Your task to perform on an android device: uninstall "NewsBreak: Local News & Alerts" Image 0: 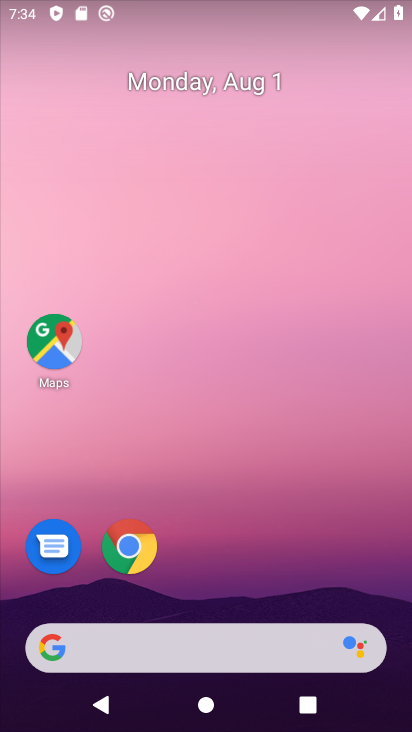
Step 0: drag from (235, 561) to (309, 47)
Your task to perform on an android device: uninstall "NewsBreak: Local News & Alerts" Image 1: 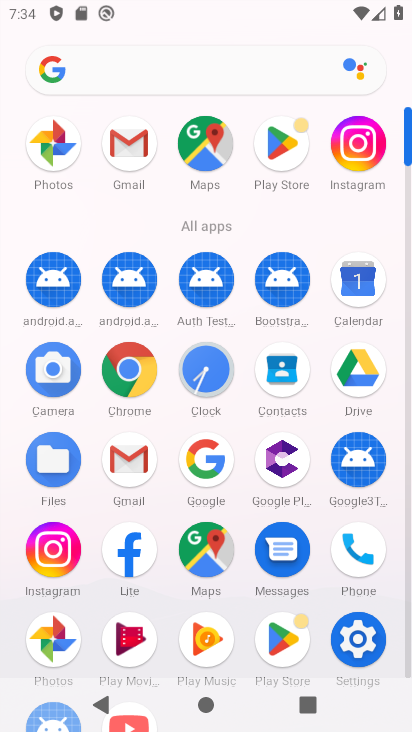
Step 1: click (281, 157)
Your task to perform on an android device: uninstall "NewsBreak: Local News & Alerts" Image 2: 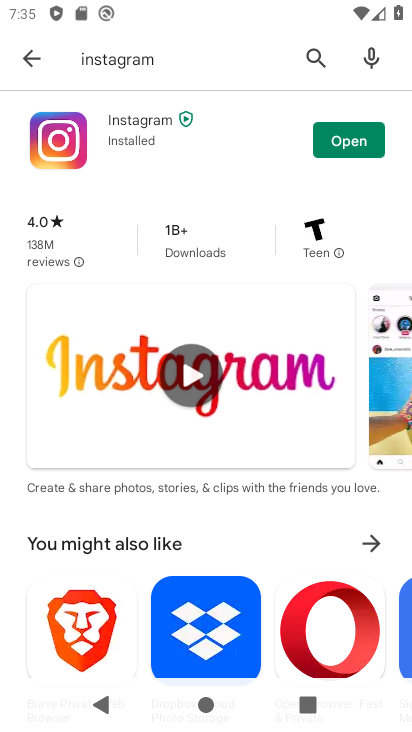
Step 2: click (253, 60)
Your task to perform on an android device: uninstall "NewsBreak: Local News & Alerts" Image 3: 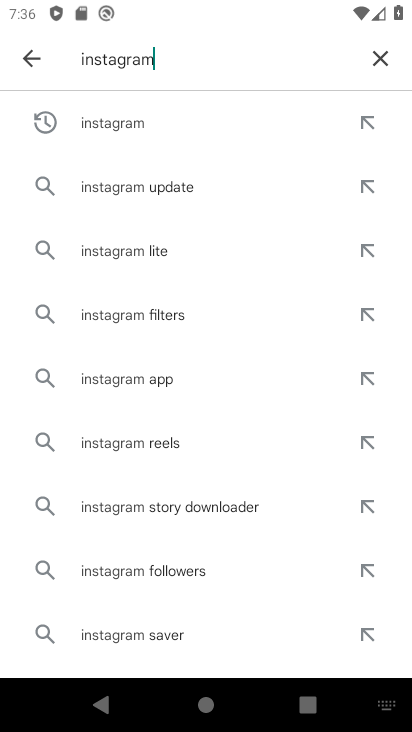
Step 3: click (372, 54)
Your task to perform on an android device: uninstall "NewsBreak: Local News & Alerts" Image 4: 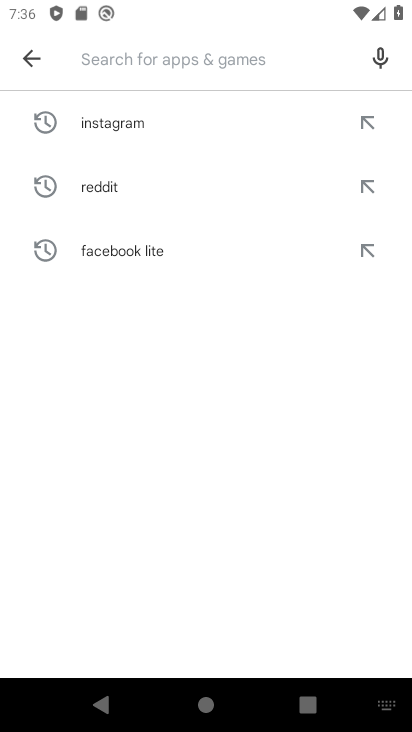
Step 4: type "Newsbreak"
Your task to perform on an android device: uninstall "NewsBreak: Local News & Alerts" Image 5: 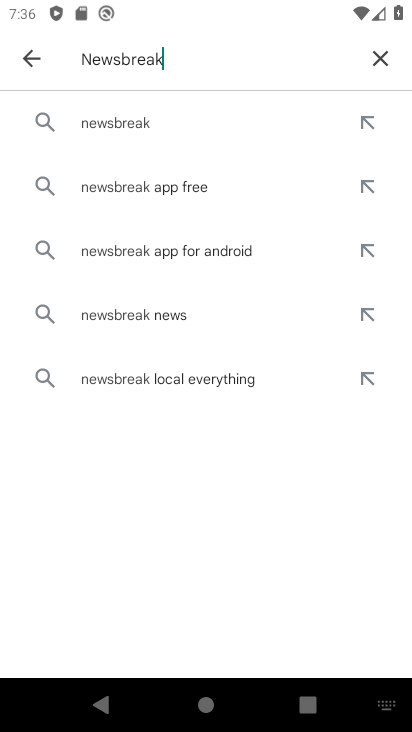
Step 5: type ": local news"
Your task to perform on an android device: uninstall "NewsBreak: Local News & Alerts" Image 6: 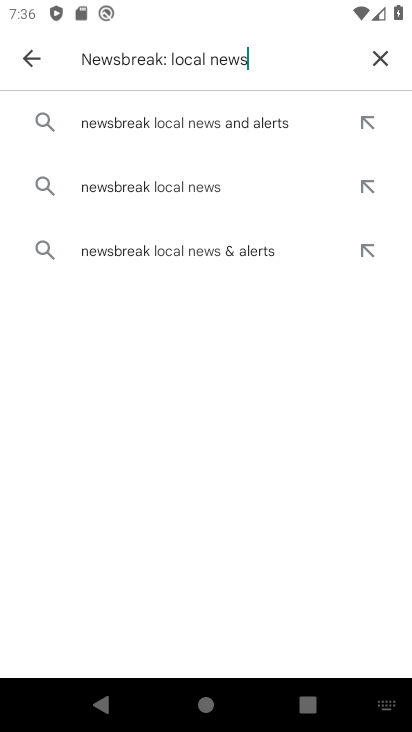
Step 6: click (253, 121)
Your task to perform on an android device: uninstall "NewsBreak: Local News & Alerts" Image 7: 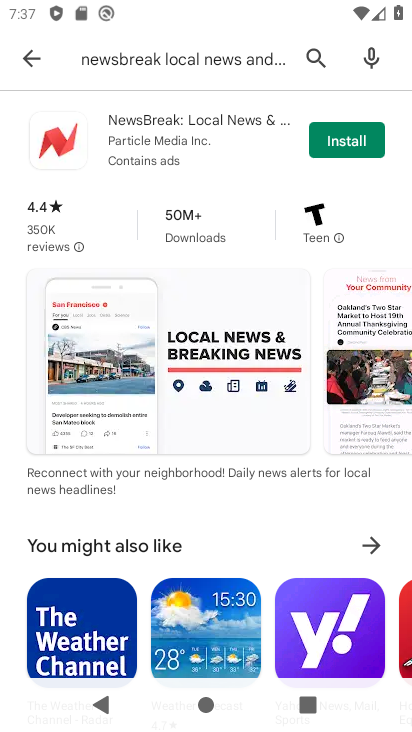
Step 7: task complete